Your task to perform on an android device: Go to notification settings Image 0: 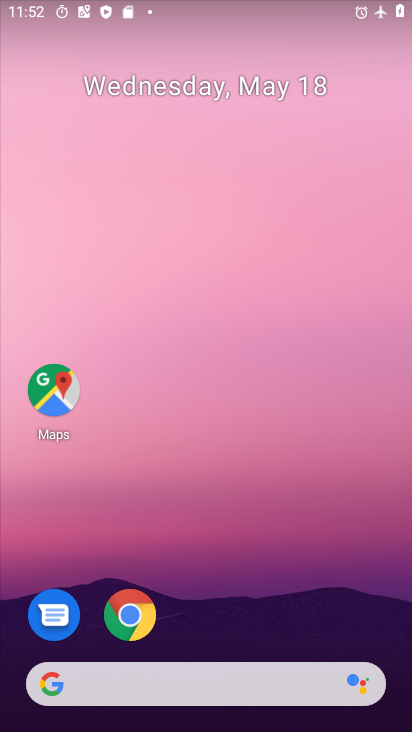
Step 0: drag from (67, 605) to (273, 249)
Your task to perform on an android device: Go to notification settings Image 1: 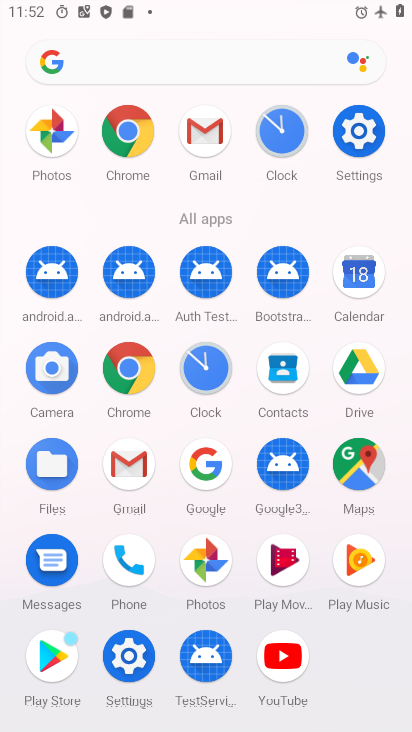
Step 1: click (357, 128)
Your task to perform on an android device: Go to notification settings Image 2: 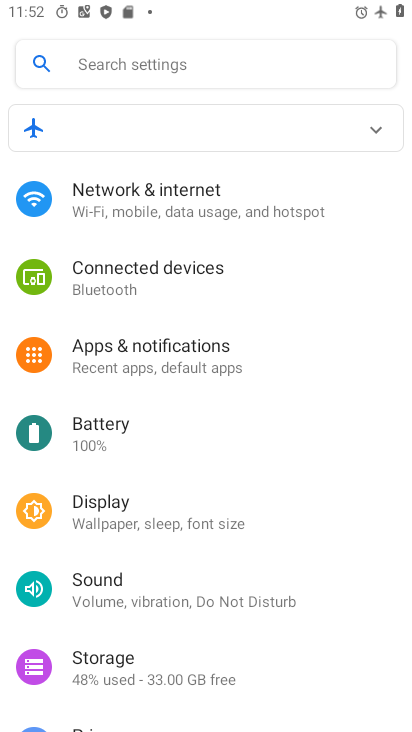
Step 2: click (182, 353)
Your task to perform on an android device: Go to notification settings Image 3: 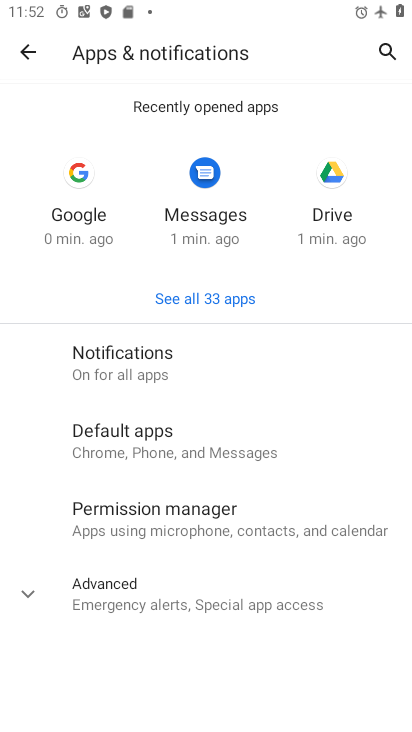
Step 3: press home button
Your task to perform on an android device: Go to notification settings Image 4: 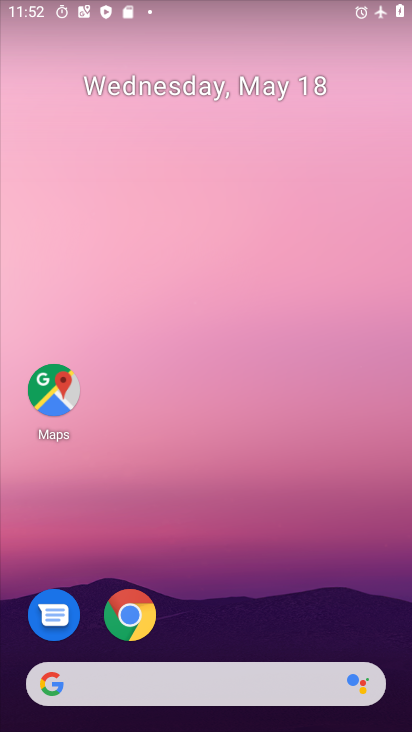
Step 4: drag from (37, 432) to (219, 157)
Your task to perform on an android device: Go to notification settings Image 5: 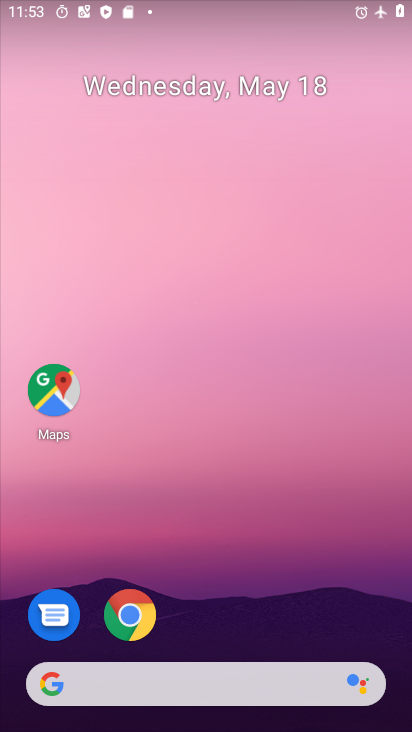
Step 5: drag from (57, 409) to (216, 105)
Your task to perform on an android device: Go to notification settings Image 6: 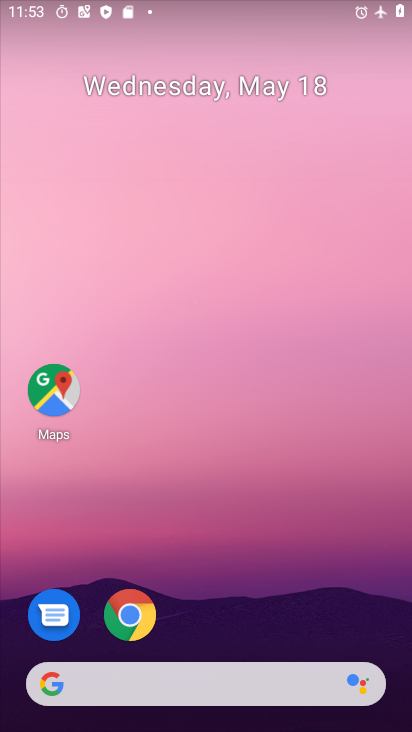
Step 6: drag from (39, 509) to (256, 76)
Your task to perform on an android device: Go to notification settings Image 7: 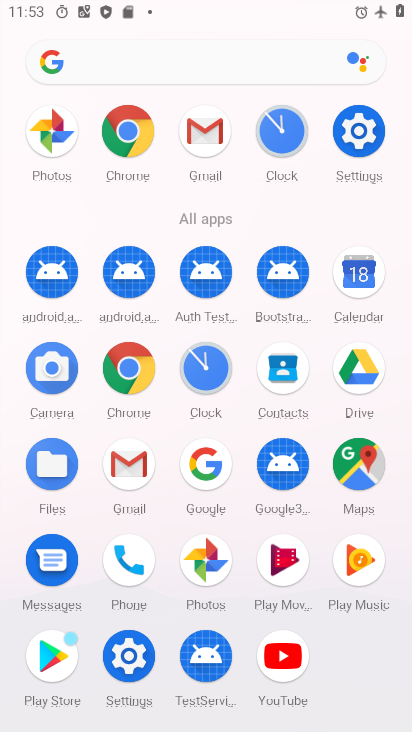
Step 7: click (346, 143)
Your task to perform on an android device: Go to notification settings Image 8: 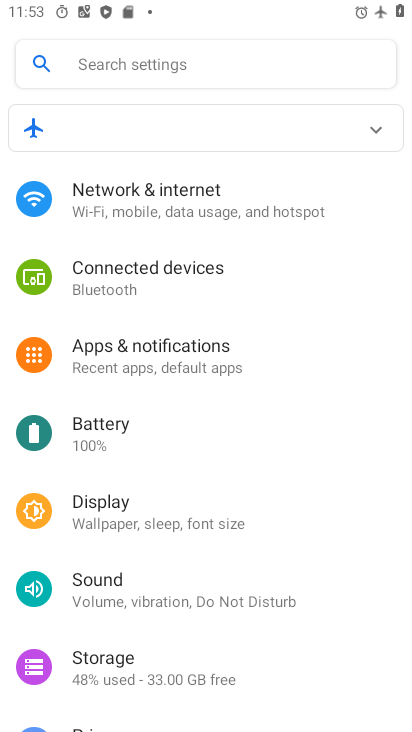
Step 8: click (125, 362)
Your task to perform on an android device: Go to notification settings Image 9: 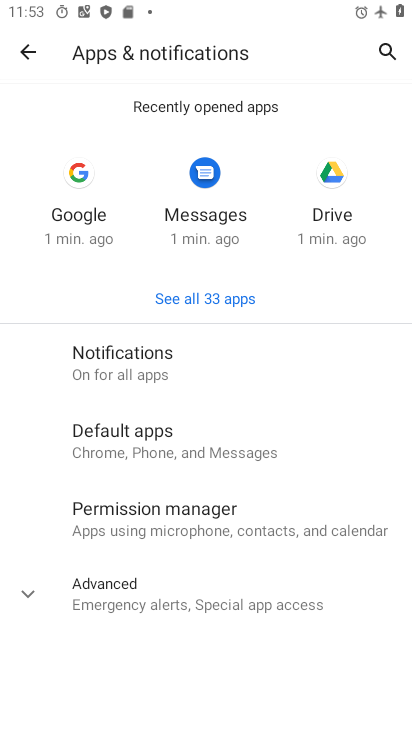
Step 9: click (127, 359)
Your task to perform on an android device: Go to notification settings Image 10: 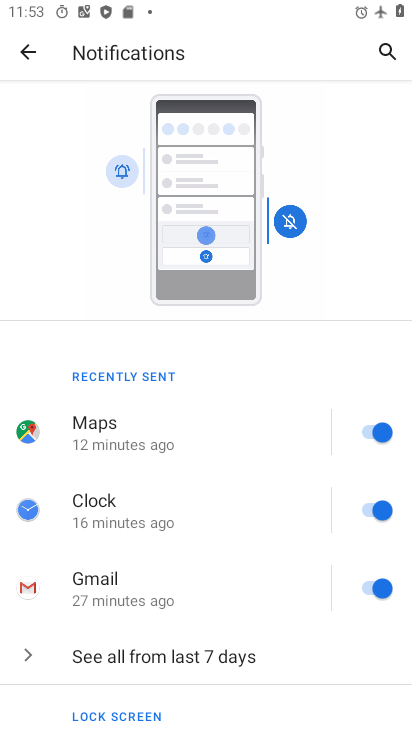
Step 10: drag from (1, 636) to (204, 192)
Your task to perform on an android device: Go to notification settings Image 11: 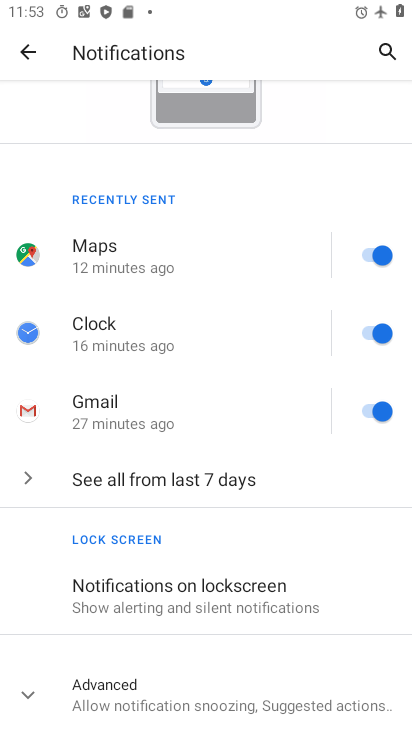
Step 11: click (158, 609)
Your task to perform on an android device: Go to notification settings Image 12: 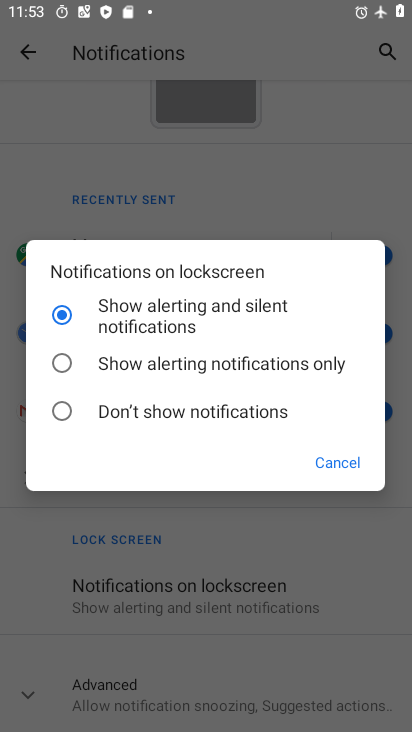
Step 12: click (359, 458)
Your task to perform on an android device: Go to notification settings Image 13: 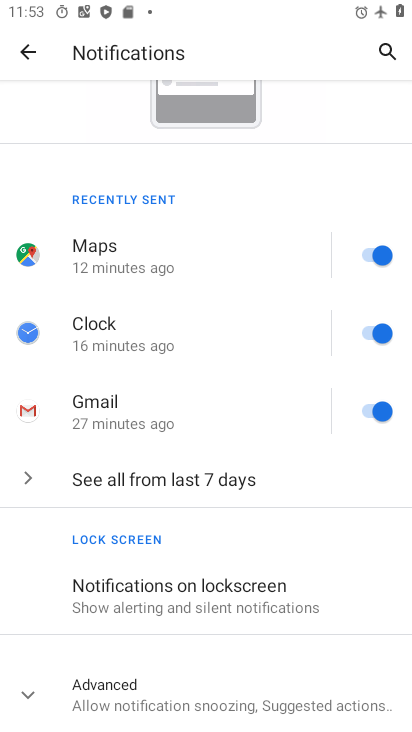
Step 13: task complete